Your task to perform on an android device: Open Yahoo.com Image 0: 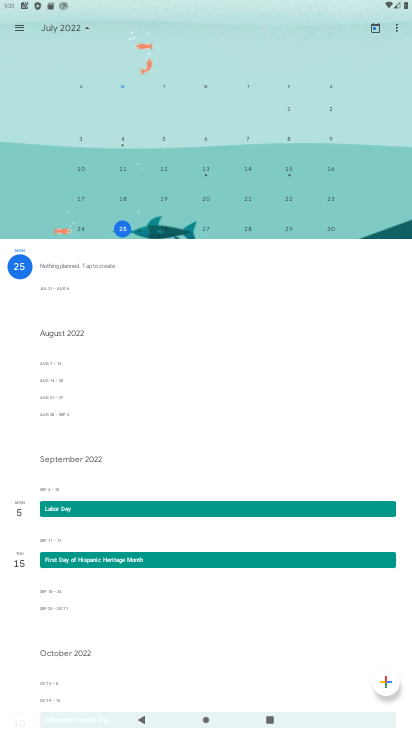
Step 0: press home button
Your task to perform on an android device: Open Yahoo.com Image 1: 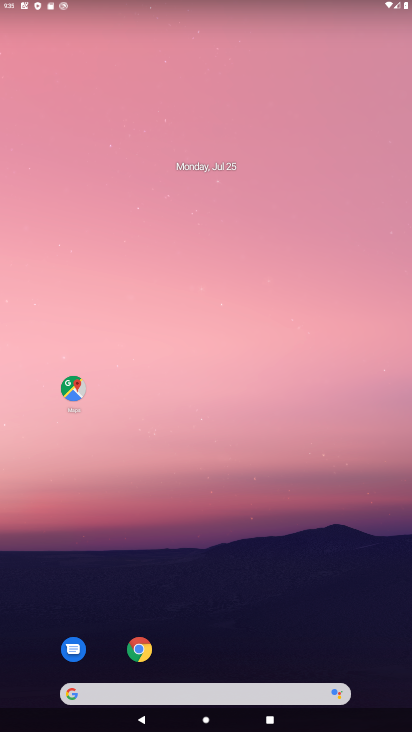
Step 1: drag from (245, 636) to (160, 0)
Your task to perform on an android device: Open Yahoo.com Image 2: 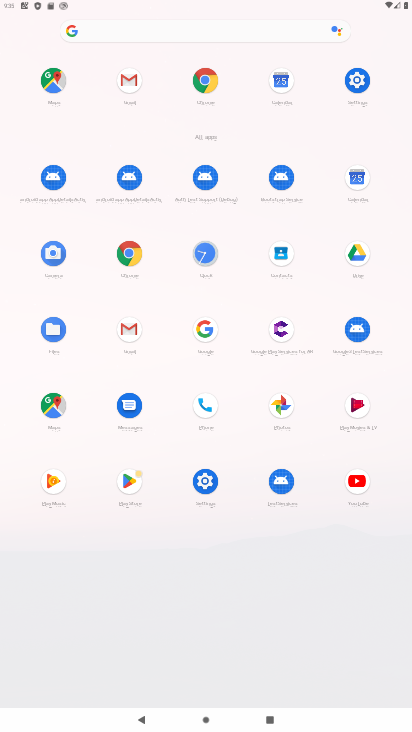
Step 2: click (206, 124)
Your task to perform on an android device: Open Yahoo.com Image 3: 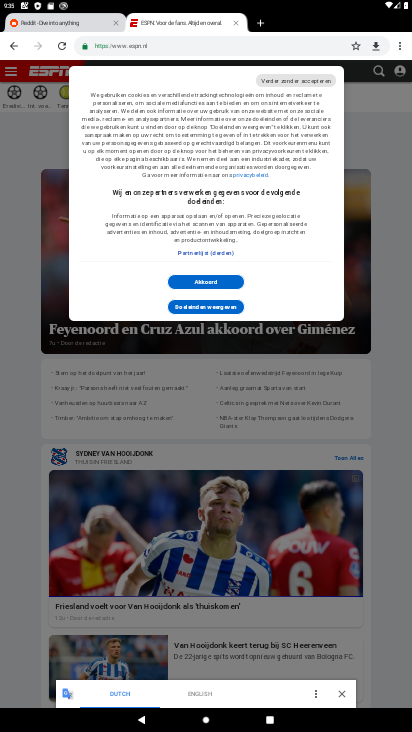
Step 3: click (19, 48)
Your task to perform on an android device: Open Yahoo.com Image 4: 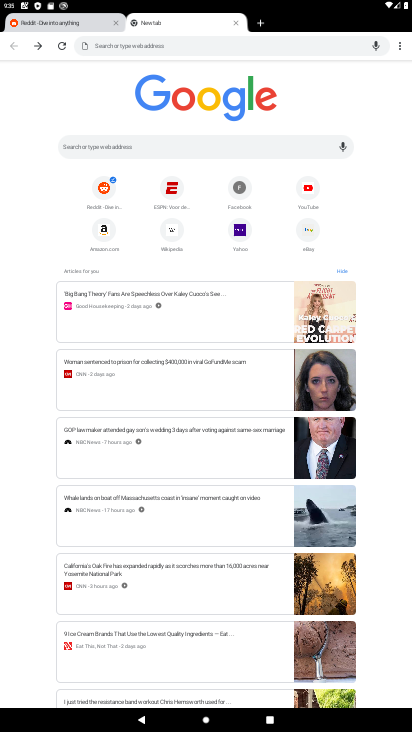
Step 4: click (245, 235)
Your task to perform on an android device: Open Yahoo.com Image 5: 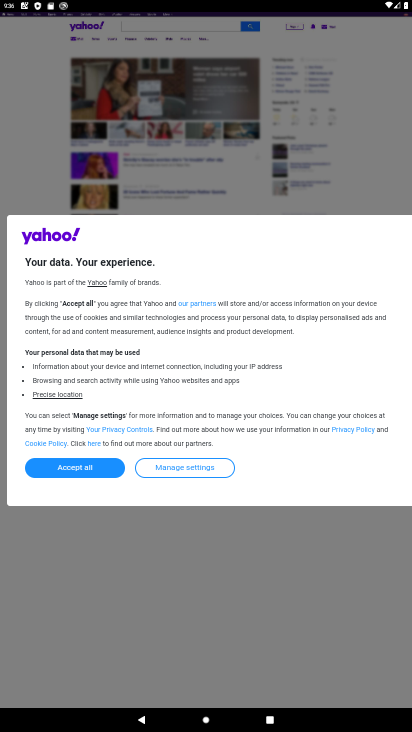
Step 5: task complete